Your task to perform on an android device: Search for pizza restaurants on Maps Image 0: 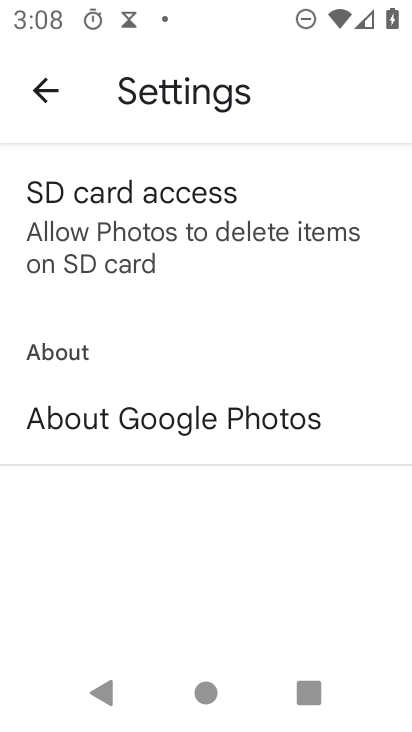
Step 0: press home button
Your task to perform on an android device: Search for pizza restaurants on Maps Image 1: 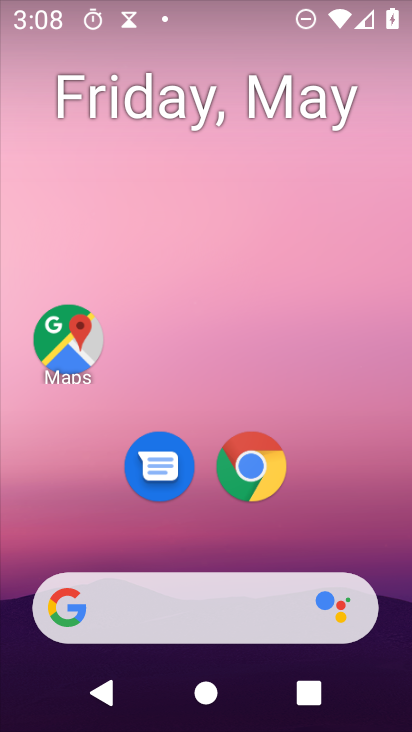
Step 1: click (60, 338)
Your task to perform on an android device: Search for pizza restaurants on Maps Image 2: 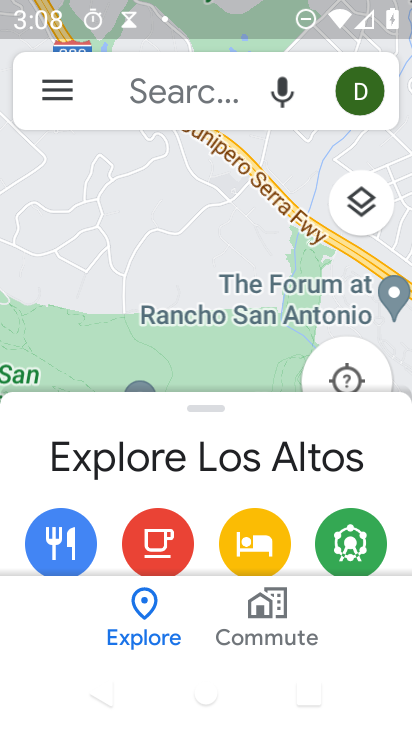
Step 2: click (206, 99)
Your task to perform on an android device: Search for pizza restaurants on Maps Image 3: 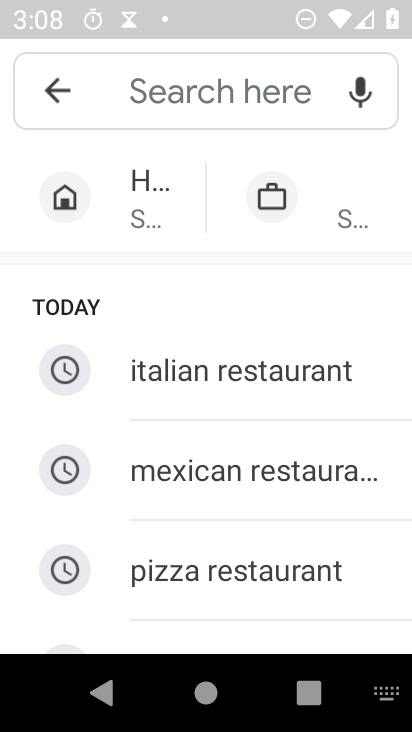
Step 3: drag from (313, 545) to (265, 272)
Your task to perform on an android device: Search for pizza restaurants on Maps Image 4: 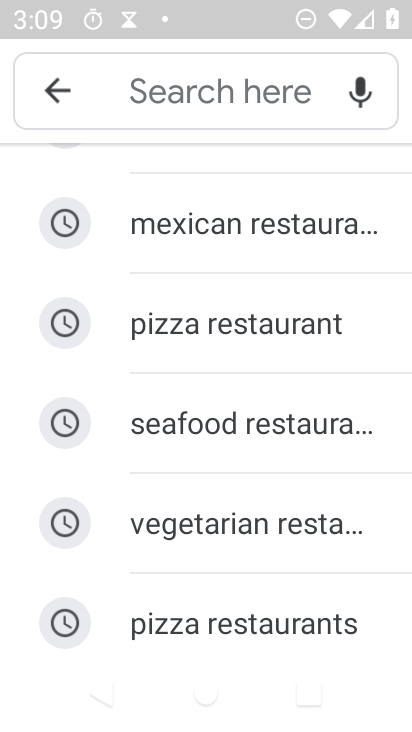
Step 4: click (223, 347)
Your task to perform on an android device: Search for pizza restaurants on Maps Image 5: 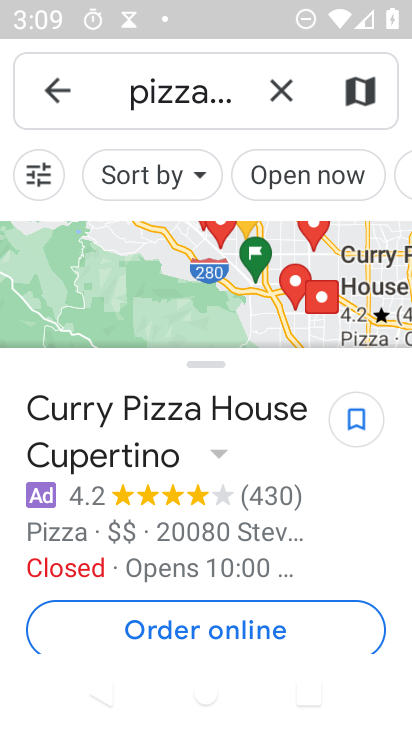
Step 5: task complete